Your task to perform on an android device: What's the weather? Image 0: 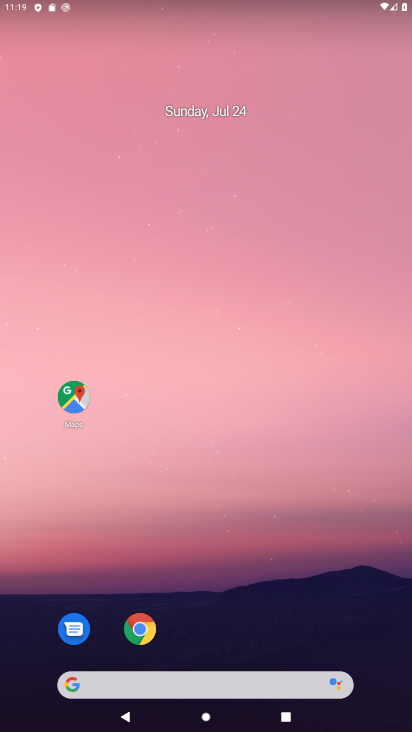
Step 0: click (141, 686)
Your task to perform on an android device: What's the weather? Image 1: 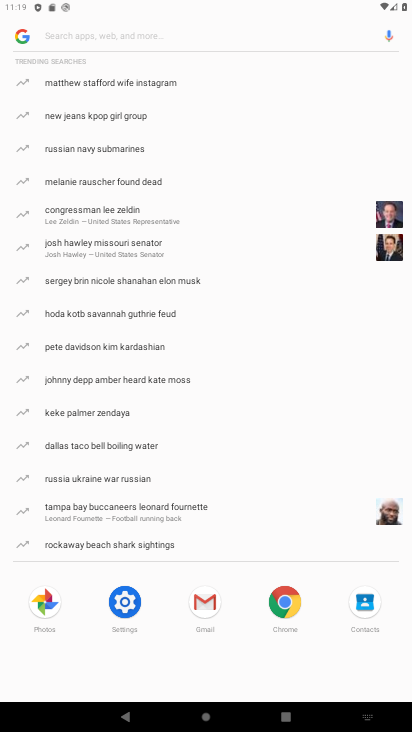
Step 1: type "weather"
Your task to perform on an android device: What's the weather? Image 2: 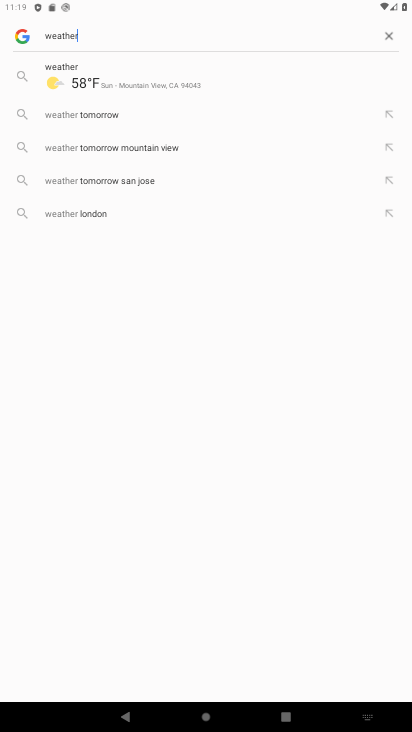
Step 2: click (56, 90)
Your task to perform on an android device: What's the weather? Image 3: 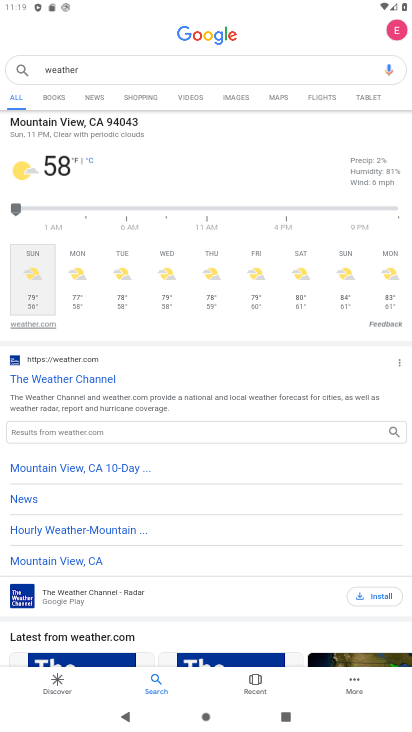
Step 3: task complete